Your task to perform on an android device: Go to battery settings Image 0: 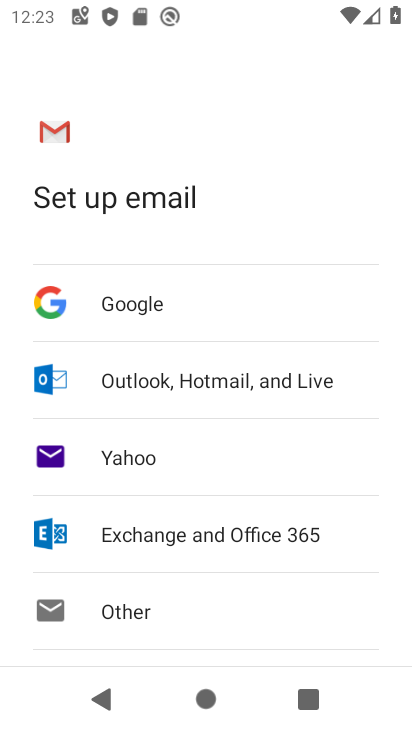
Step 0: press home button
Your task to perform on an android device: Go to battery settings Image 1: 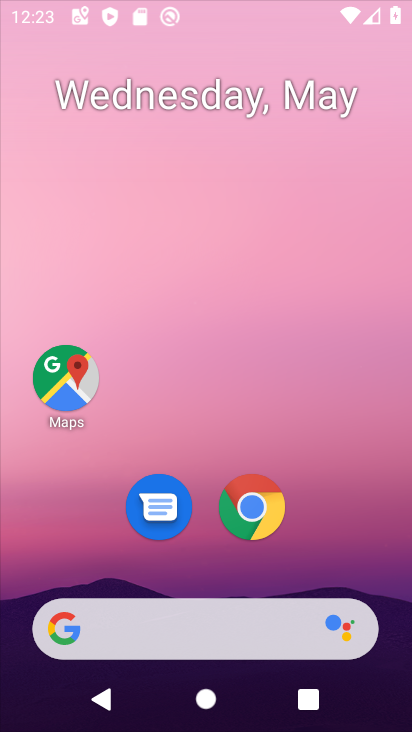
Step 1: drag from (225, 587) to (244, 238)
Your task to perform on an android device: Go to battery settings Image 2: 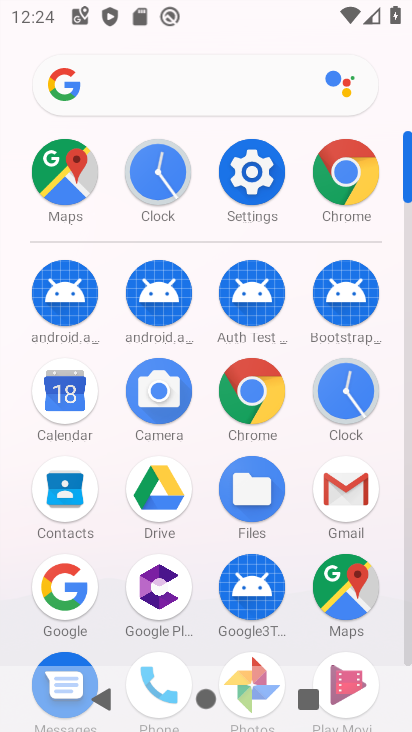
Step 2: click (259, 160)
Your task to perform on an android device: Go to battery settings Image 3: 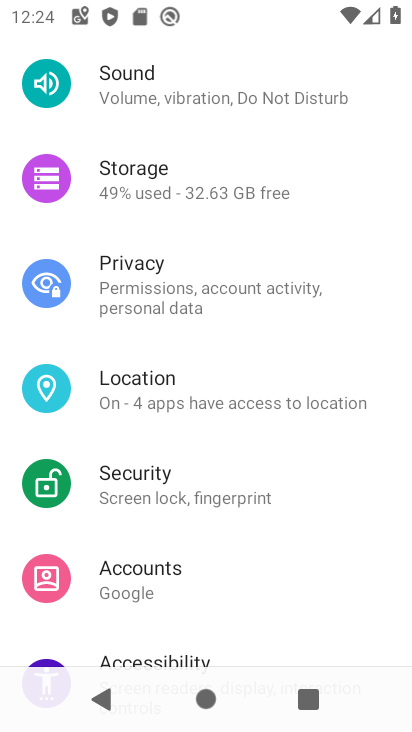
Step 3: drag from (194, 159) to (187, 578)
Your task to perform on an android device: Go to battery settings Image 4: 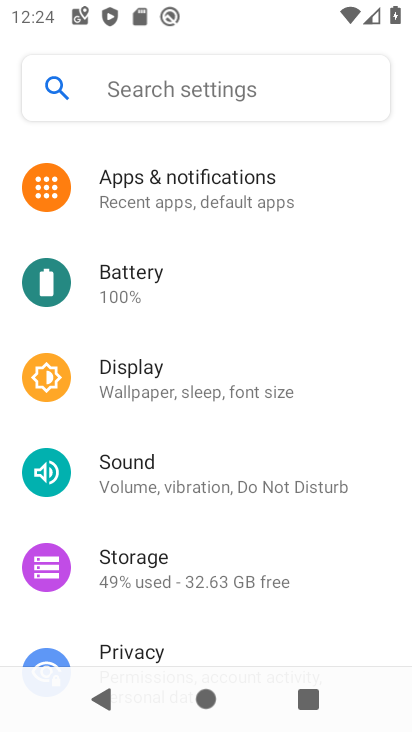
Step 4: click (134, 273)
Your task to perform on an android device: Go to battery settings Image 5: 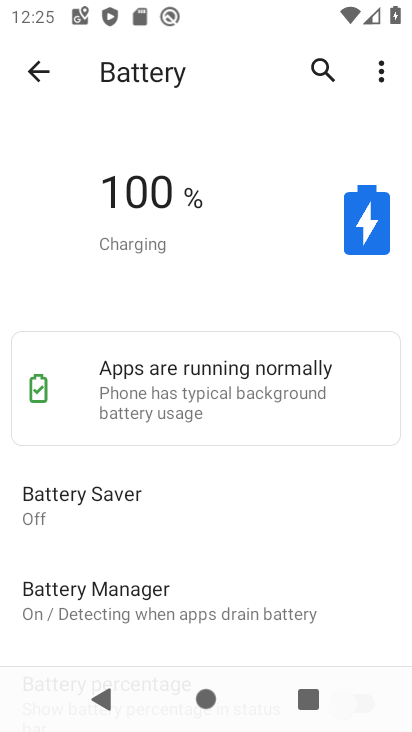
Step 5: task complete